Your task to perform on an android device: move an email to a new category in the gmail app Image 0: 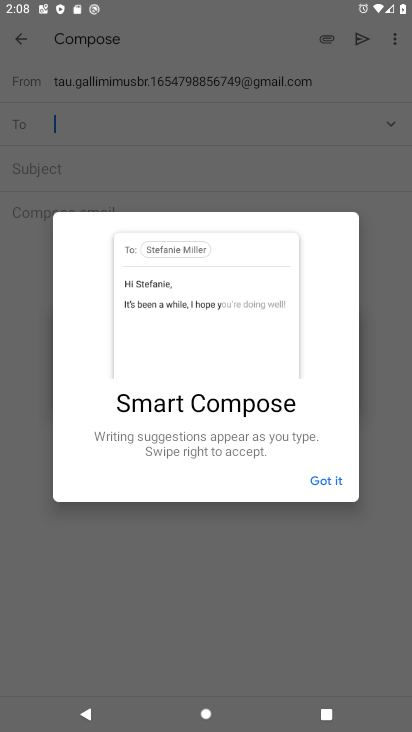
Step 0: drag from (298, 577) to (238, 87)
Your task to perform on an android device: move an email to a new category in the gmail app Image 1: 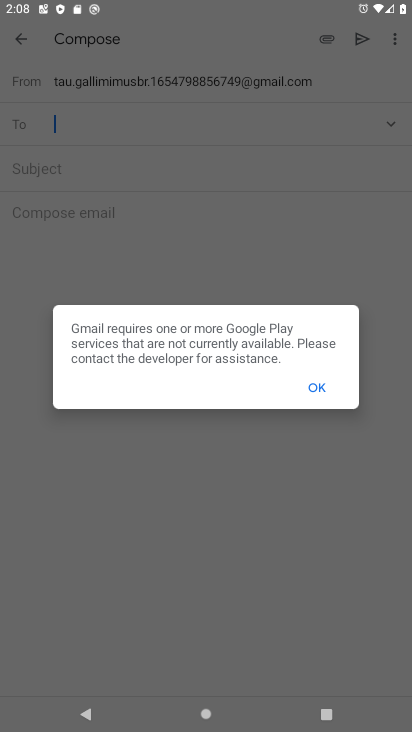
Step 1: press home button
Your task to perform on an android device: move an email to a new category in the gmail app Image 2: 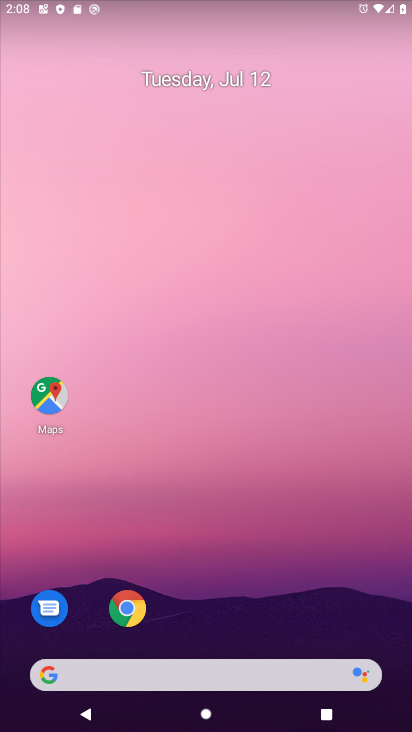
Step 2: drag from (308, 550) to (229, 153)
Your task to perform on an android device: move an email to a new category in the gmail app Image 3: 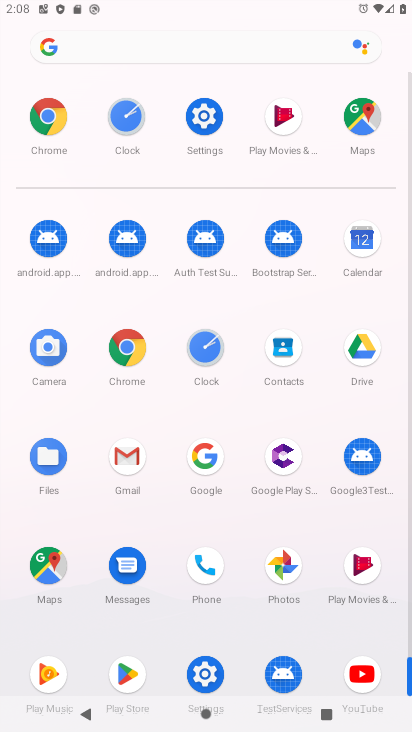
Step 3: click (128, 453)
Your task to perform on an android device: move an email to a new category in the gmail app Image 4: 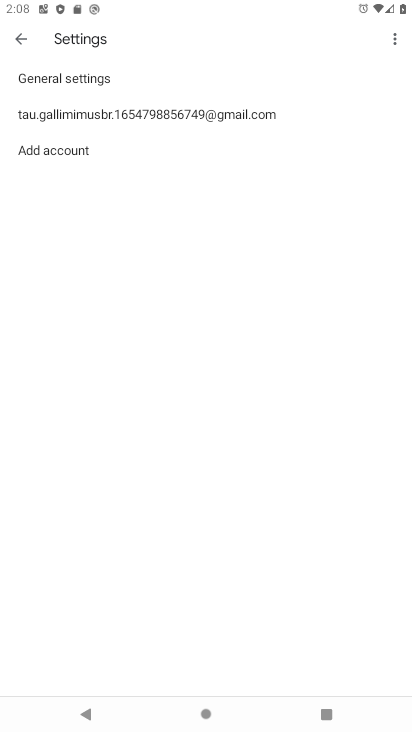
Step 4: click (19, 36)
Your task to perform on an android device: move an email to a new category in the gmail app Image 5: 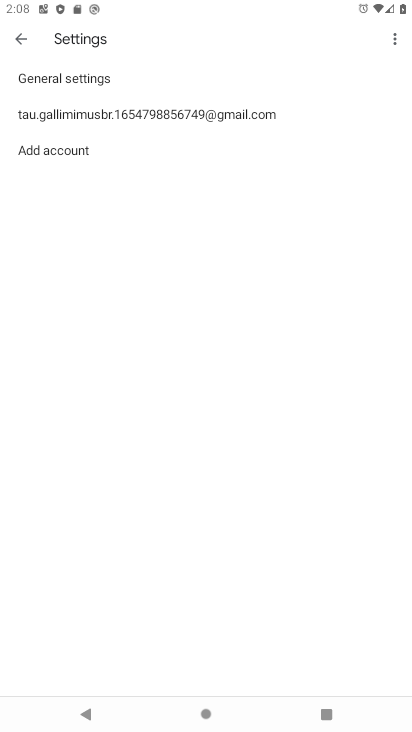
Step 5: click (17, 36)
Your task to perform on an android device: move an email to a new category in the gmail app Image 6: 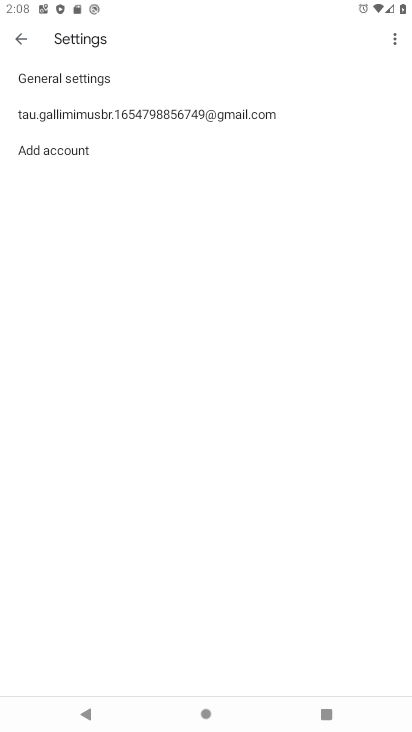
Step 6: click (24, 38)
Your task to perform on an android device: move an email to a new category in the gmail app Image 7: 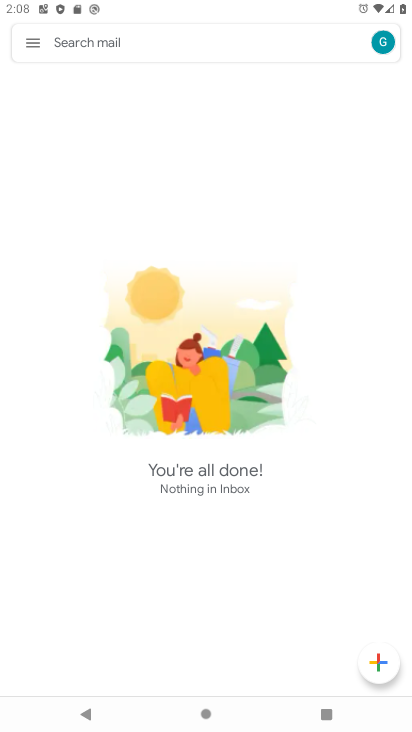
Step 7: click (24, 38)
Your task to perform on an android device: move an email to a new category in the gmail app Image 8: 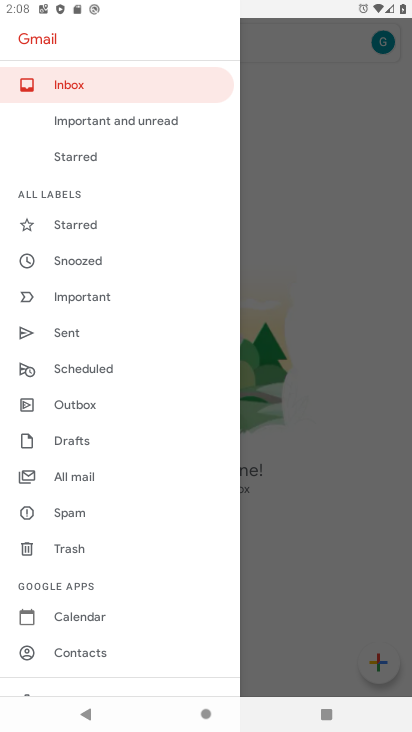
Step 8: click (80, 478)
Your task to perform on an android device: move an email to a new category in the gmail app Image 9: 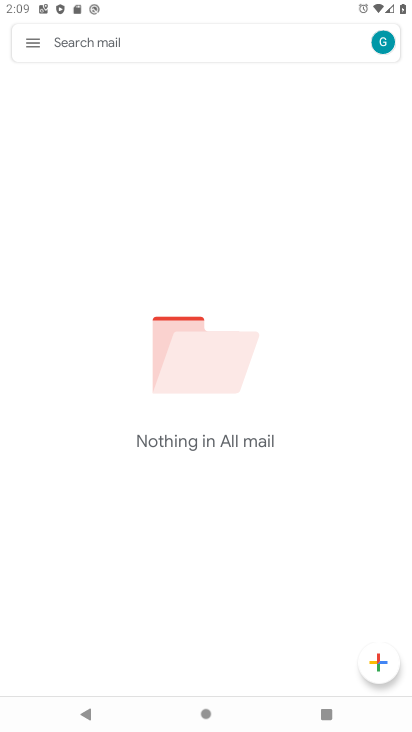
Step 9: task complete